Your task to perform on an android device: Go to display settings Image 0: 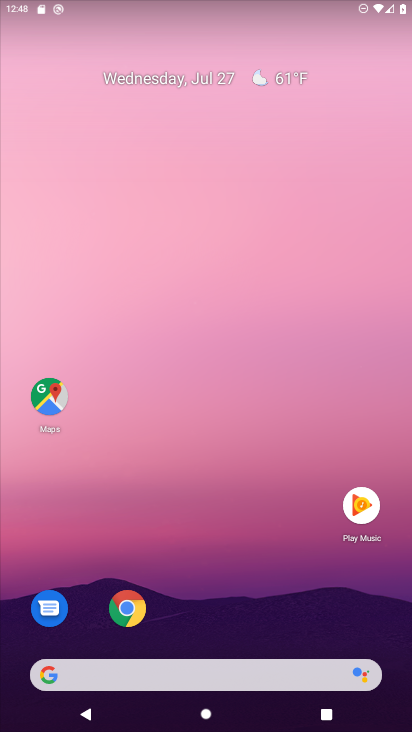
Step 0: press home button
Your task to perform on an android device: Go to display settings Image 1: 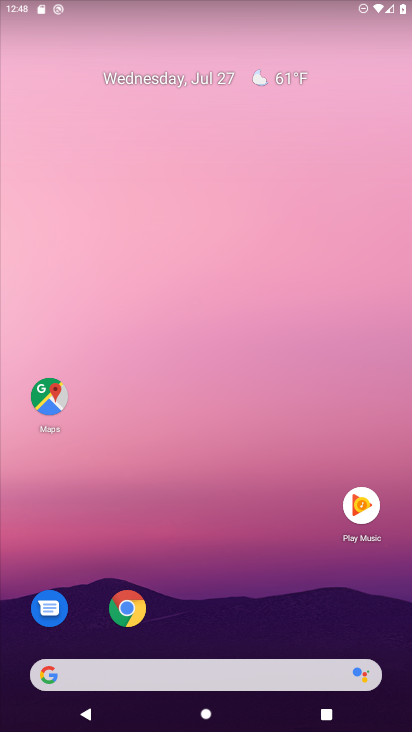
Step 1: drag from (322, 598) to (322, 152)
Your task to perform on an android device: Go to display settings Image 2: 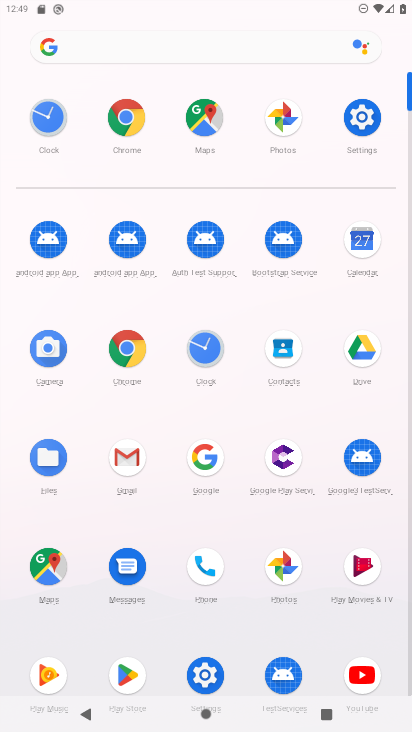
Step 2: click (363, 128)
Your task to perform on an android device: Go to display settings Image 3: 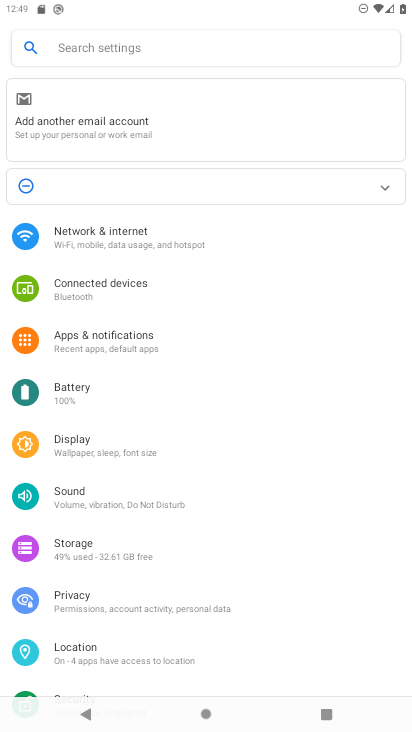
Step 3: drag from (324, 350) to (320, 304)
Your task to perform on an android device: Go to display settings Image 4: 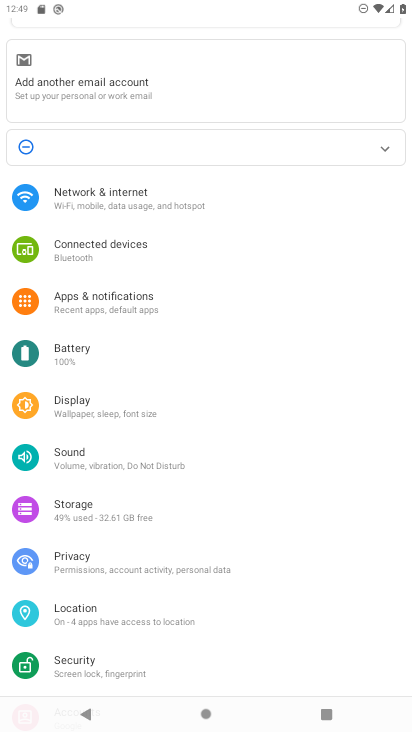
Step 4: drag from (314, 418) to (310, 345)
Your task to perform on an android device: Go to display settings Image 5: 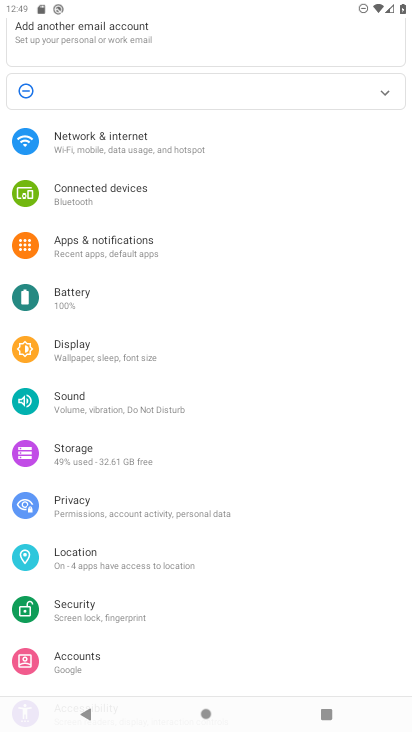
Step 5: drag from (314, 440) to (326, 354)
Your task to perform on an android device: Go to display settings Image 6: 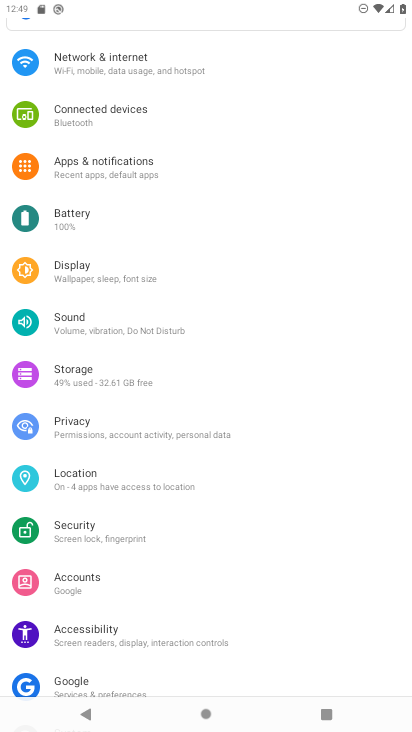
Step 6: drag from (317, 486) to (318, 418)
Your task to perform on an android device: Go to display settings Image 7: 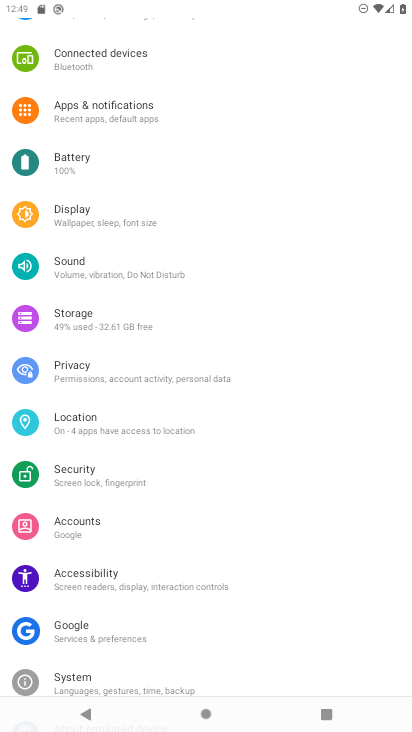
Step 7: drag from (325, 499) to (327, 437)
Your task to perform on an android device: Go to display settings Image 8: 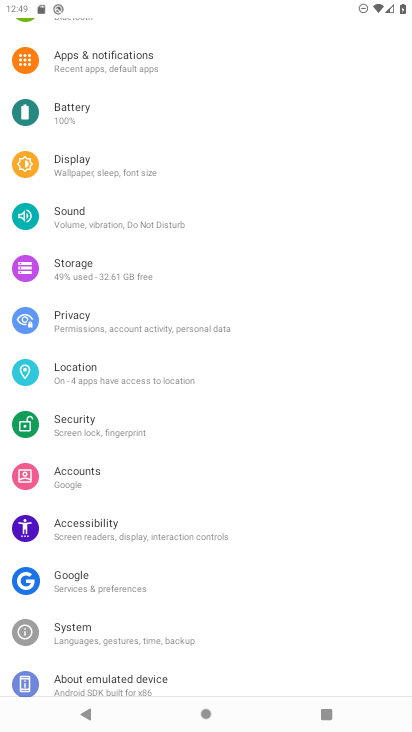
Step 8: drag from (319, 543) to (322, 469)
Your task to perform on an android device: Go to display settings Image 9: 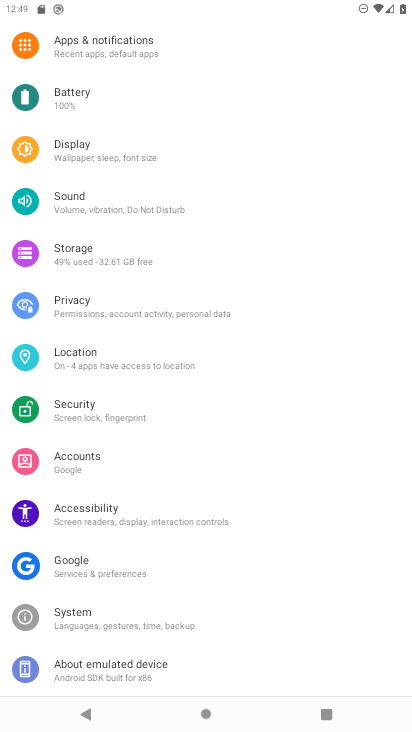
Step 9: drag from (320, 394) to (320, 439)
Your task to perform on an android device: Go to display settings Image 10: 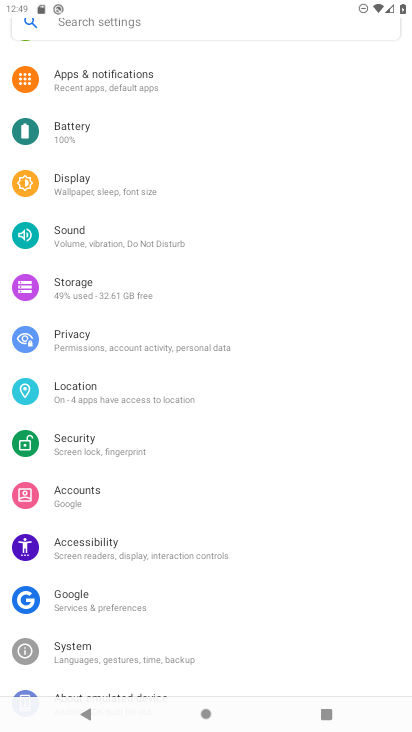
Step 10: drag from (325, 384) to (325, 429)
Your task to perform on an android device: Go to display settings Image 11: 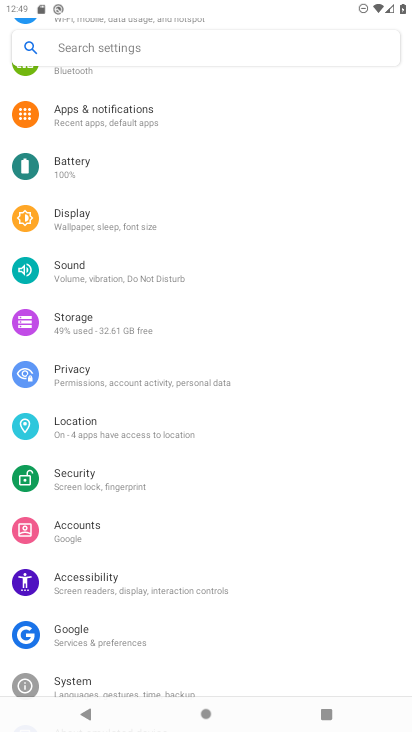
Step 11: drag from (335, 340) to (335, 417)
Your task to perform on an android device: Go to display settings Image 12: 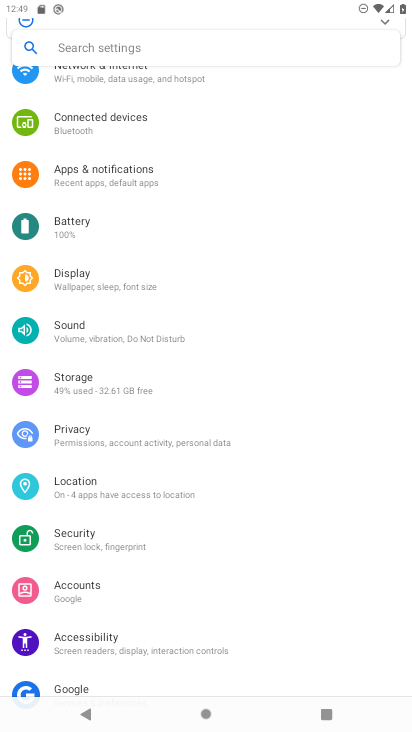
Step 12: drag from (331, 321) to (332, 415)
Your task to perform on an android device: Go to display settings Image 13: 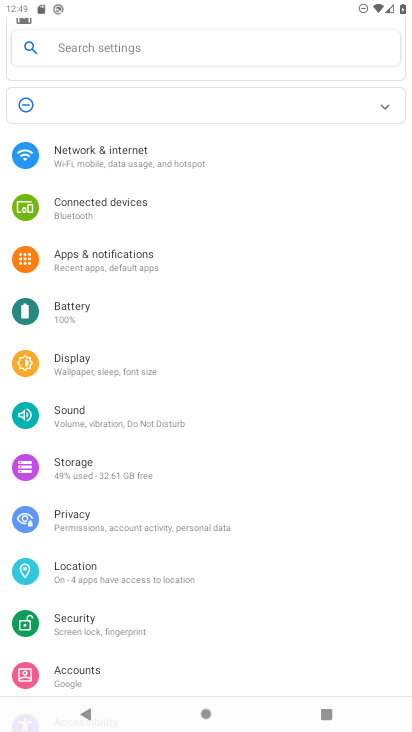
Step 13: drag from (329, 345) to (339, 540)
Your task to perform on an android device: Go to display settings Image 14: 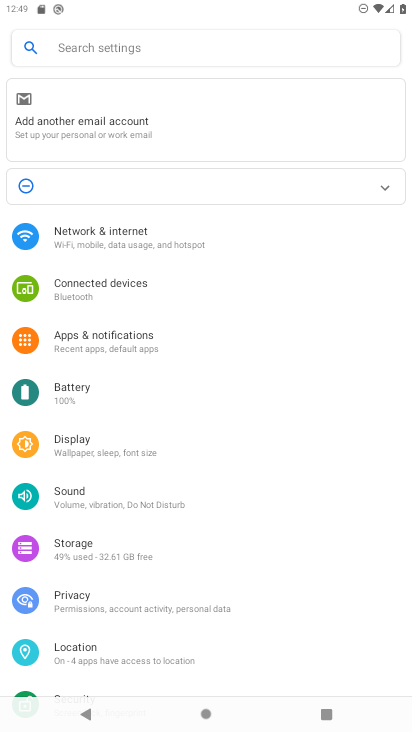
Step 14: click (179, 445)
Your task to perform on an android device: Go to display settings Image 15: 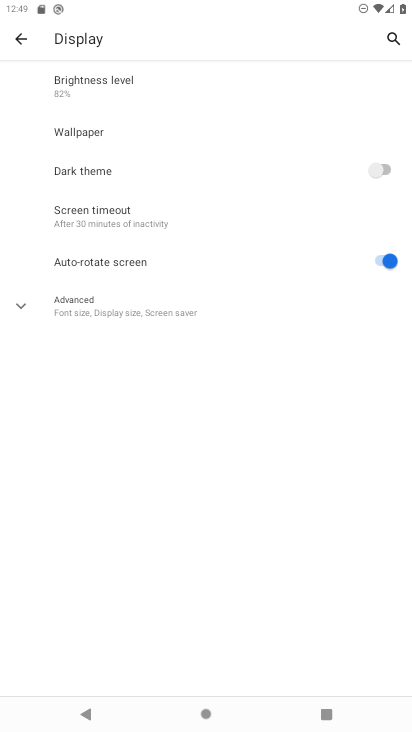
Step 15: task complete